Your task to perform on an android device: Open privacy settings Image 0: 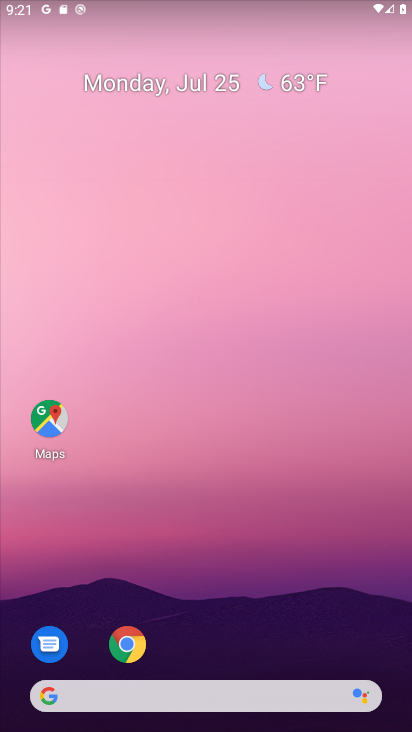
Step 0: drag from (313, 645) to (261, 189)
Your task to perform on an android device: Open privacy settings Image 1: 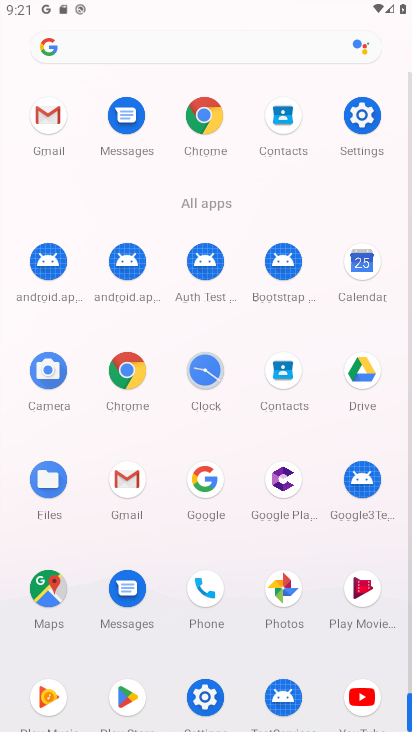
Step 1: click (360, 118)
Your task to perform on an android device: Open privacy settings Image 2: 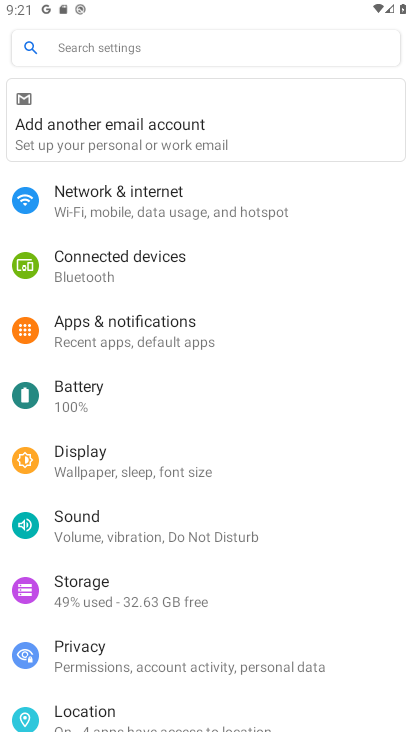
Step 2: click (89, 657)
Your task to perform on an android device: Open privacy settings Image 3: 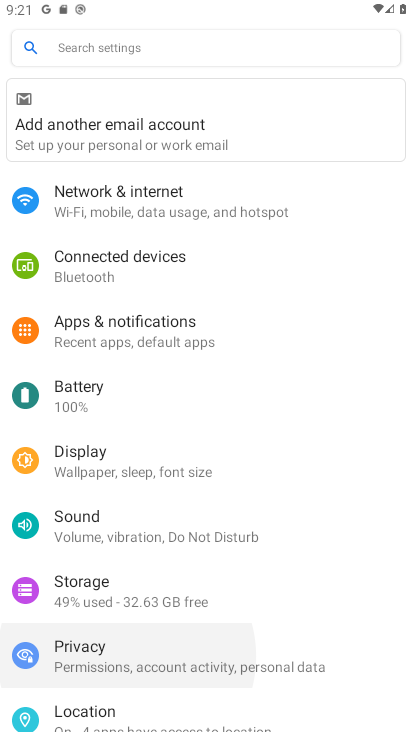
Step 3: click (89, 657)
Your task to perform on an android device: Open privacy settings Image 4: 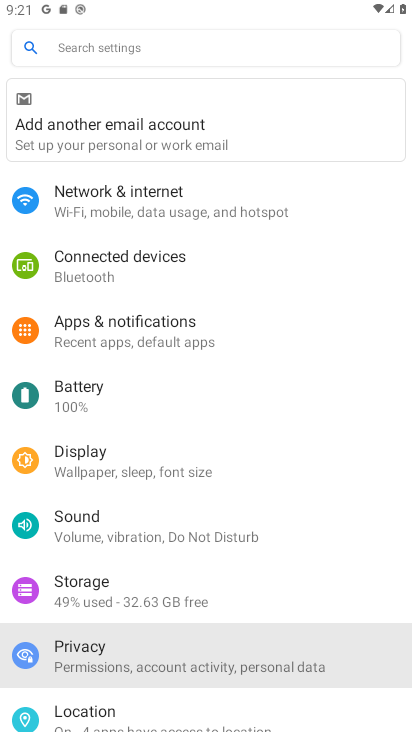
Step 4: click (89, 657)
Your task to perform on an android device: Open privacy settings Image 5: 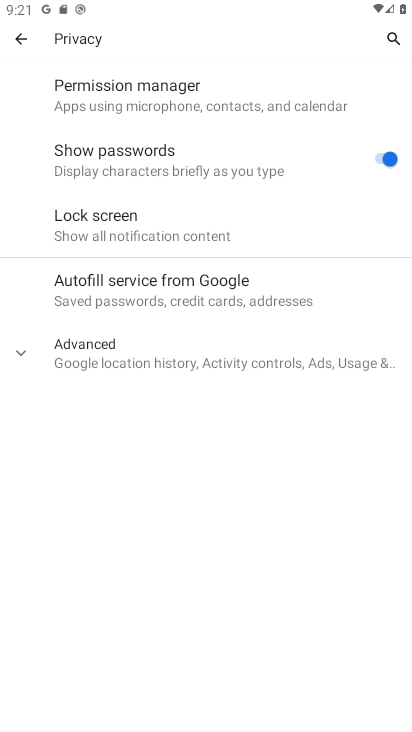
Step 5: task complete